Your task to perform on an android device: move a message to another label in the gmail app Image 0: 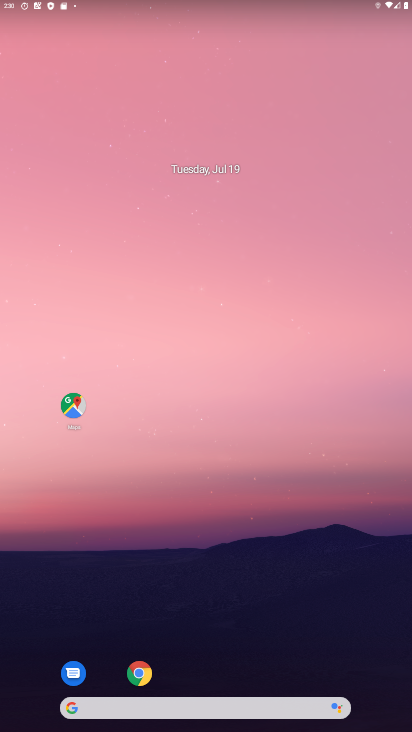
Step 0: drag from (221, 676) to (247, 2)
Your task to perform on an android device: move a message to another label in the gmail app Image 1: 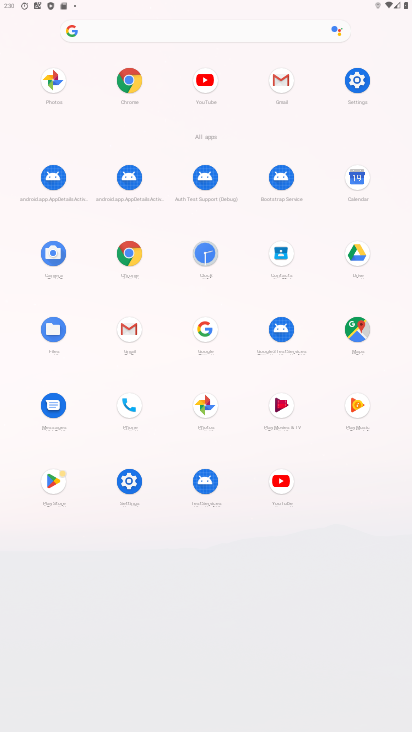
Step 1: click (124, 333)
Your task to perform on an android device: move a message to another label in the gmail app Image 2: 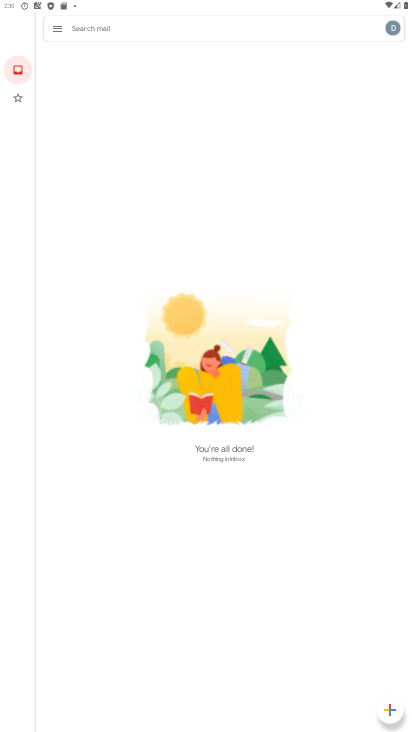
Step 2: task complete